Your task to perform on an android device: turn notification dots on Image 0: 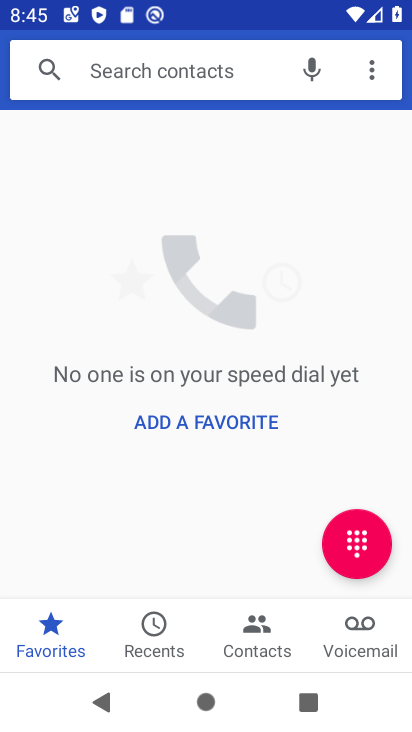
Step 0: press home button
Your task to perform on an android device: turn notification dots on Image 1: 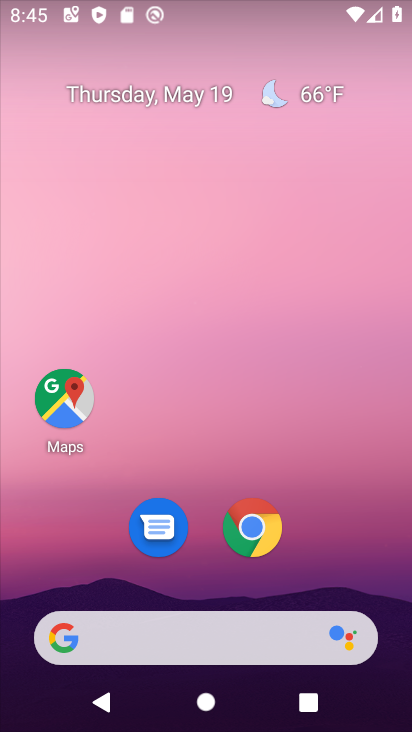
Step 1: drag from (201, 570) to (180, 57)
Your task to perform on an android device: turn notification dots on Image 2: 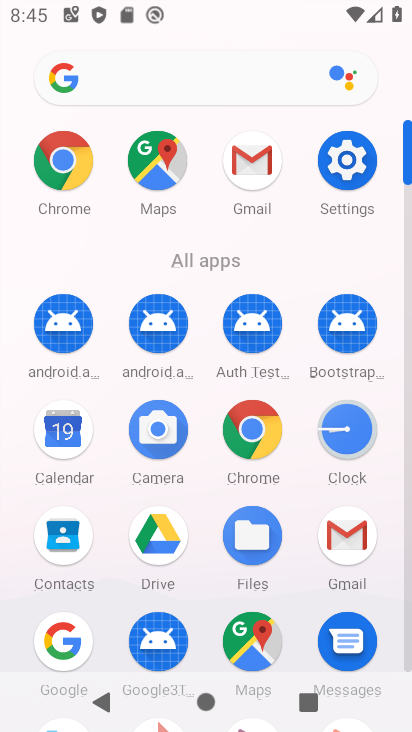
Step 2: click (348, 164)
Your task to perform on an android device: turn notification dots on Image 3: 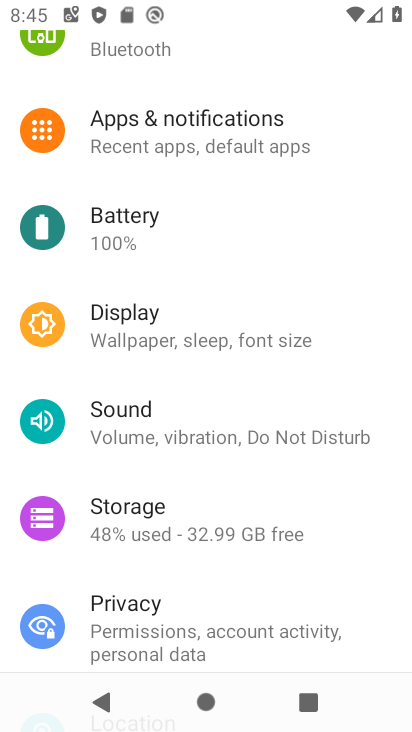
Step 3: drag from (228, 271) to (172, 410)
Your task to perform on an android device: turn notification dots on Image 4: 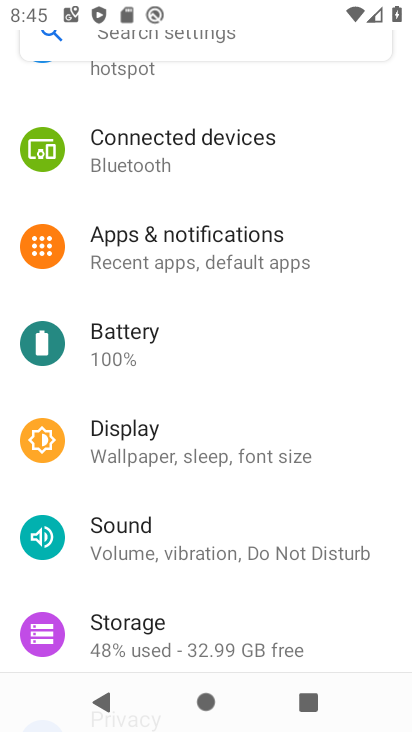
Step 4: click (139, 268)
Your task to perform on an android device: turn notification dots on Image 5: 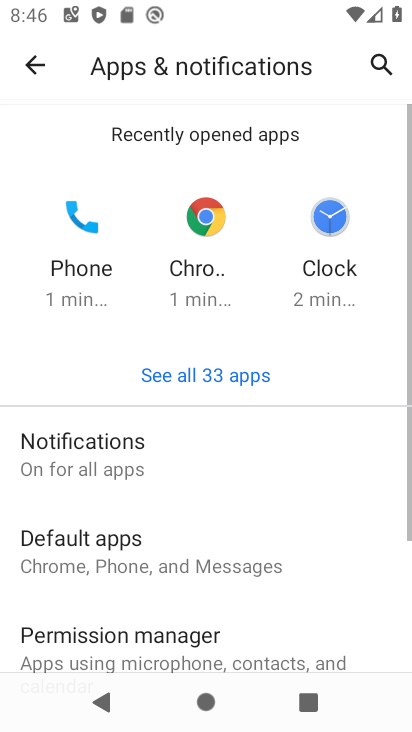
Step 5: click (195, 470)
Your task to perform on an android device: turn notification dots on Image 6: 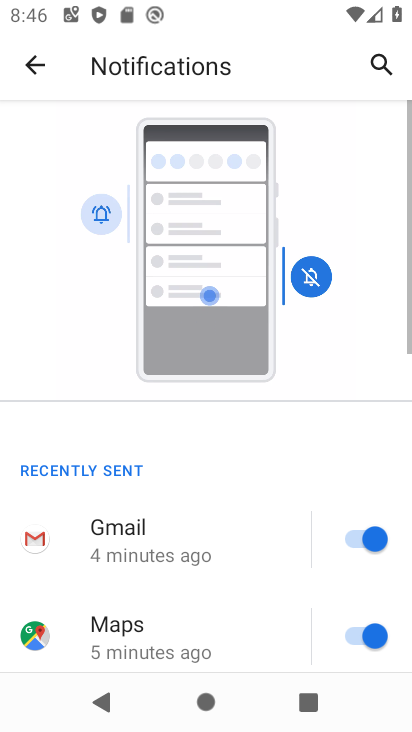
Step 6: drag from (201, 473) to (163, 75)
Your task to perform on an android device: turn notification dots on Image 7: 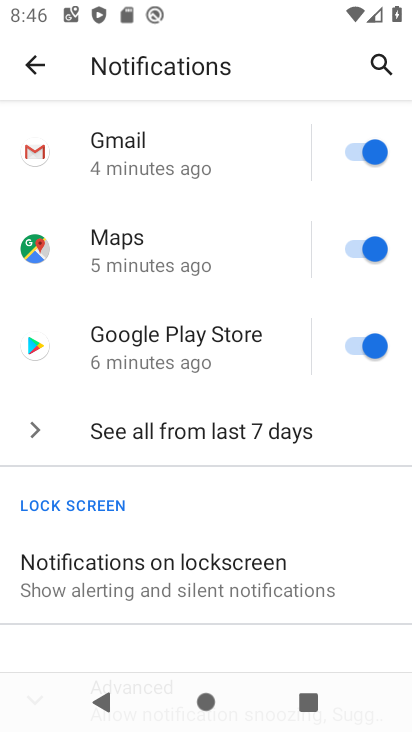
Step 7: drag from (230, 517) to (214, 269)
Your task to perform on an android device: turn notification dots on Image 8: 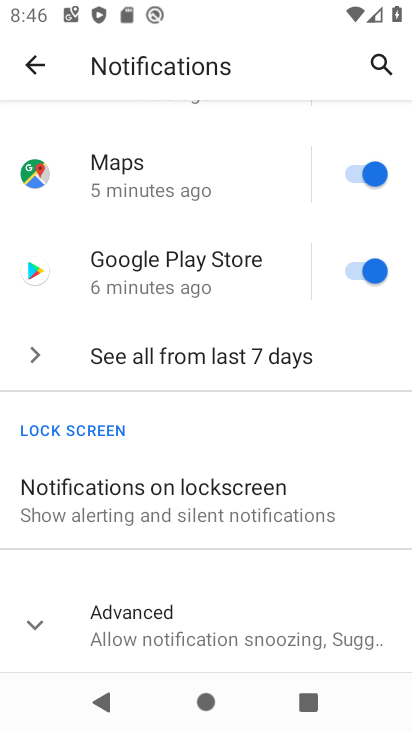
Step 8: click (137, 646)
Your task to perform on an android device: turn notification dots on Image 9: 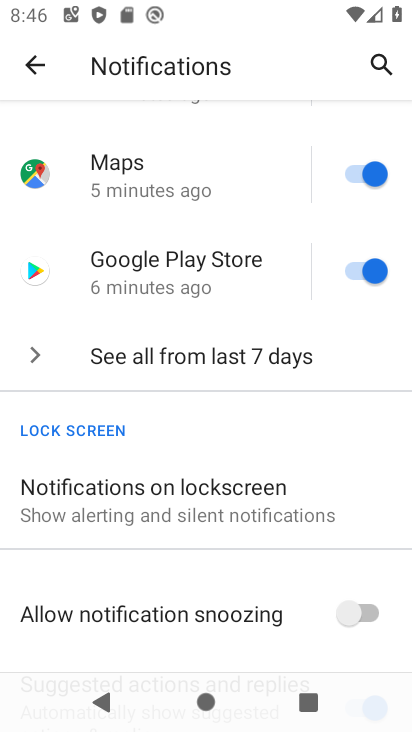
Step 9: task complete